Your task to perform on an android device: Search for sushi restaurants on Maps Image 0: 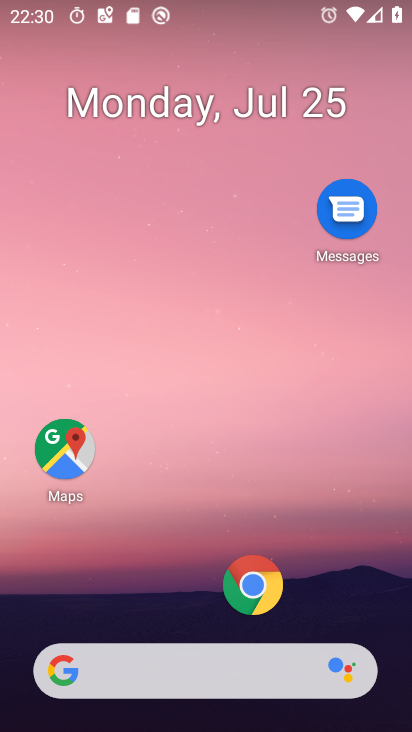
Step 0: click (52, 448)
Your task to perform on an android device: Search for sushi restaurants on Maps Image 1: 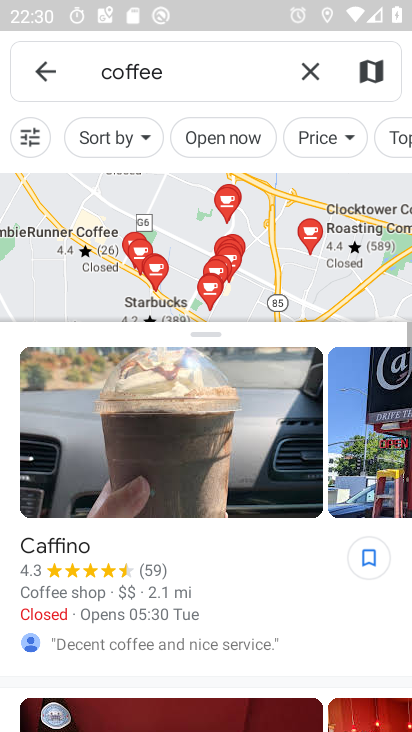
Step 1: click (317, 72)
Your task to perform on an android device: Search for sushi restaurants on Maps Image 2: 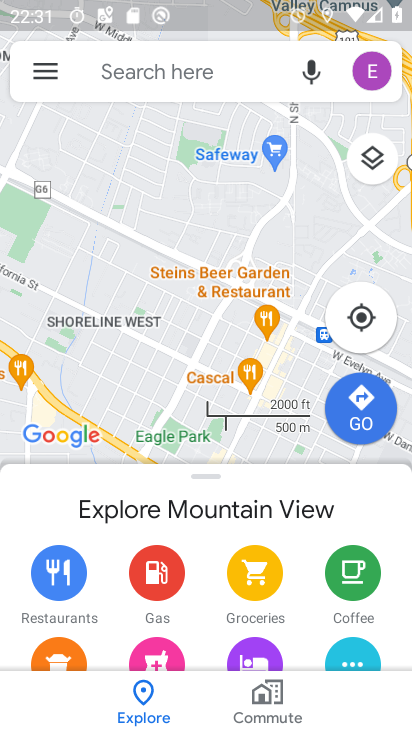
Step 2: click (173, 76)
Your task to perform on an android device: Search for sushi restaurants on Maps Image 3: 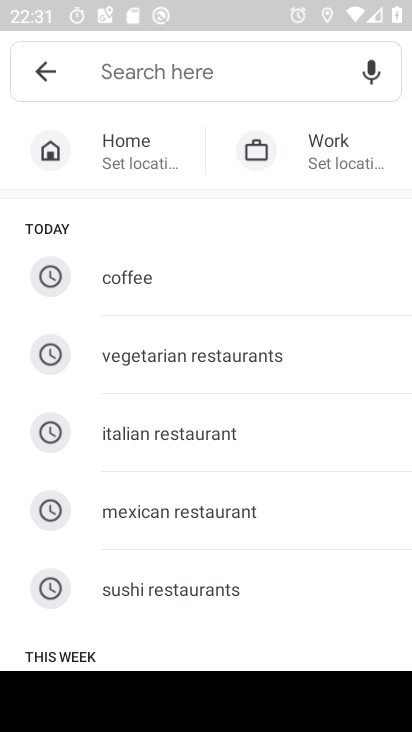
Step 3: click (190, 581)
Your task to perform on an android device: Search for sushi restaurants on Maps Image 4: 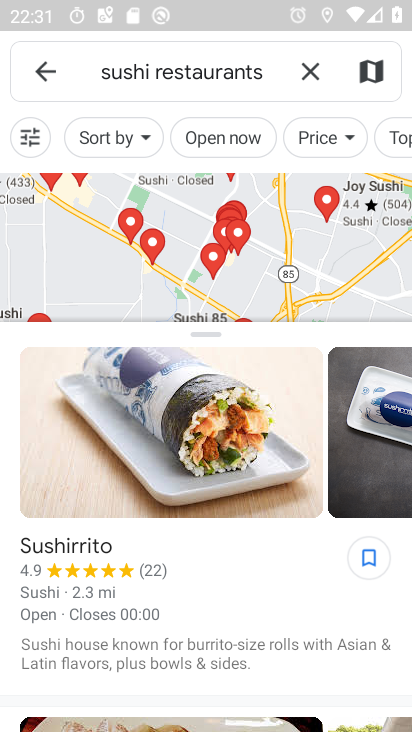
Step 4: task complete